Your task to perform on an android device: clear all cookies in the chrome app Image 0: 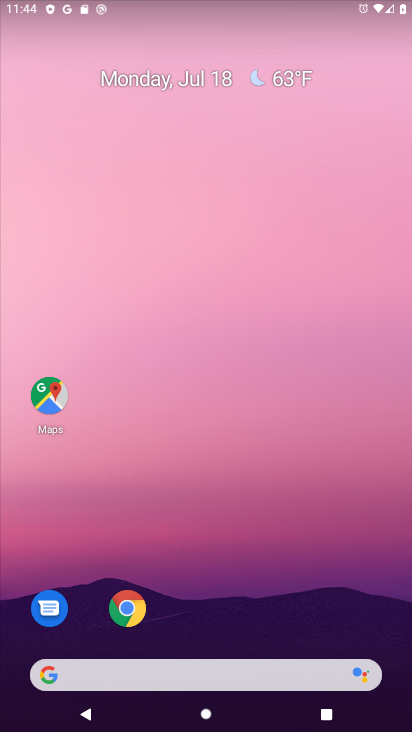
Step 0: click (118, 618)
Your task to perform on an android device: clear all cookies in the chrome app Image 1: 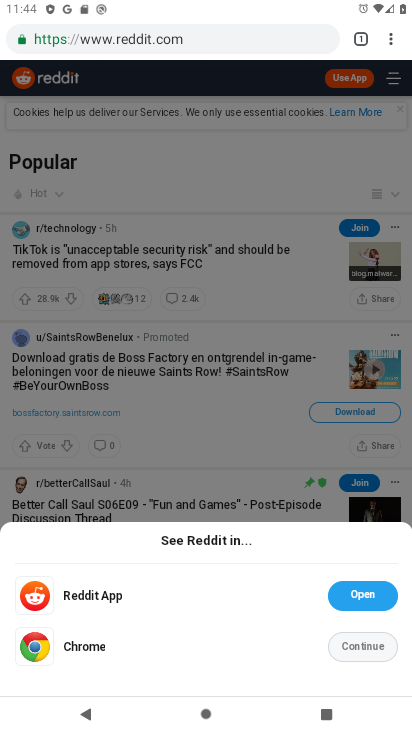
Step 1: click (393, 40)
Your task to perform on an android device: clear all cookies in the chrome app Image 2: 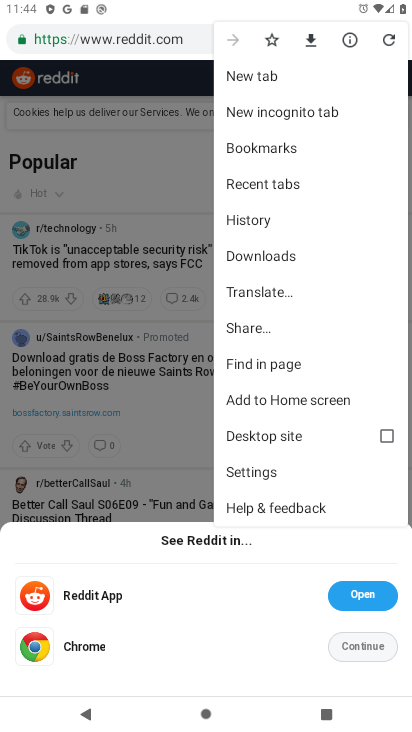
Step 2: click (250, 210)
Your task to perform on an android device: clear all cookies in the chrome app Image 3: 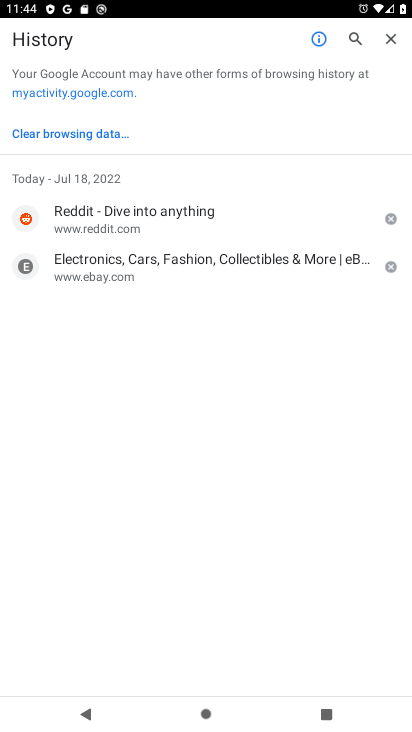
Step 3: click (86, 139)
Your task to perform on an android device: clear all cookies in the chrome app Image 4: 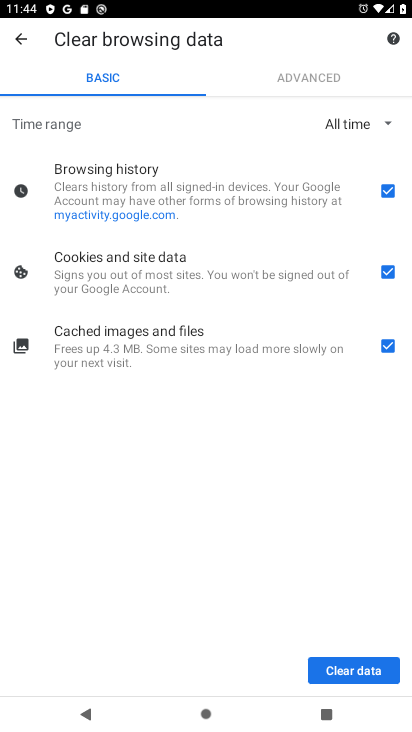
Step 4: click (375, 355)
Your task to perform on an android device: clear all cookies in the chrome app Image 5: 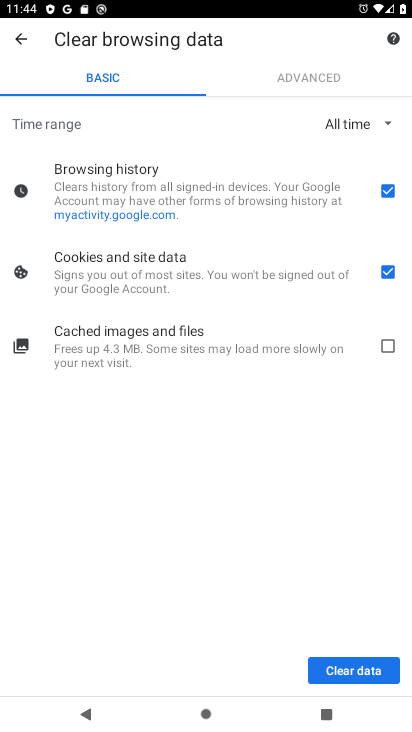
Step 5: click (375, 355)
Your task to perform on an android device: clear all cookies in the chrome app Image 6: 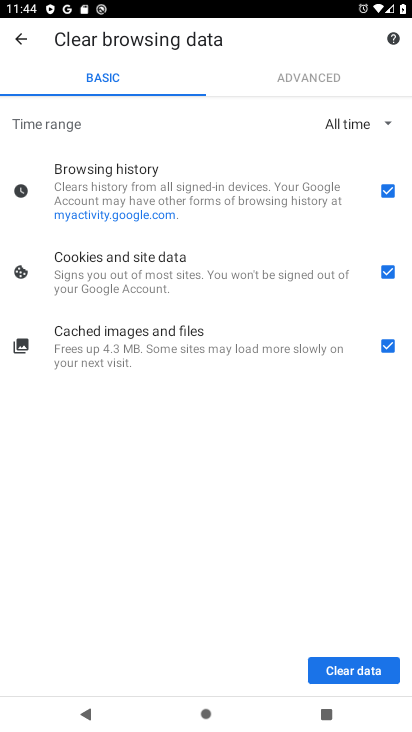
Step 6: click (375, 355)
Your task to perform on an android device: clear all cookies in the chrome app Image 7: 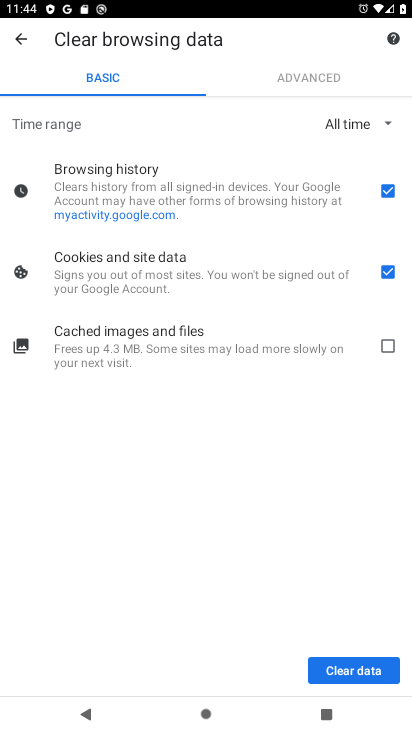
Step 7: click (387, 173)
Your task to perform on an android device: clear all cookies in the chrome app Image 8: 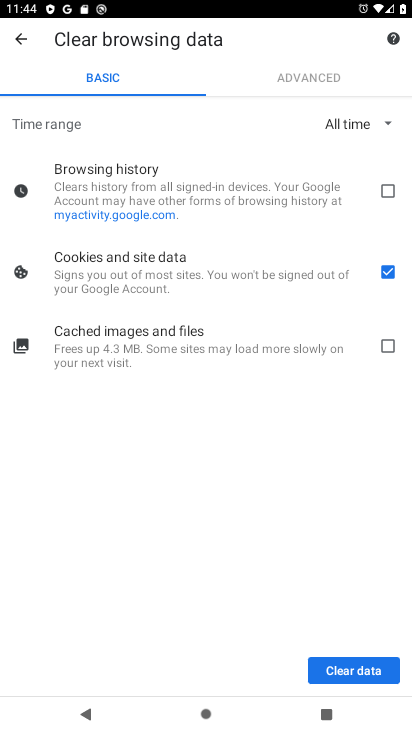
Step 8: click (367, 674)
Your task to perform on an android device: clear all cookies in the chrome app Image 9: 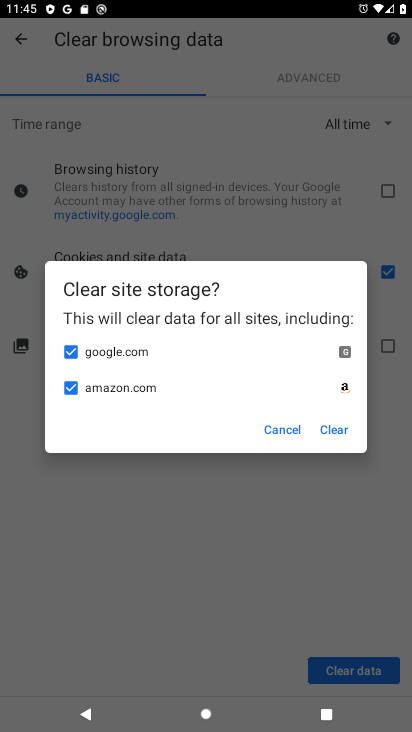
Step 9: click (328, 426)
Your task to perform on an android device: clear all cookies in the chrome app Image 10: 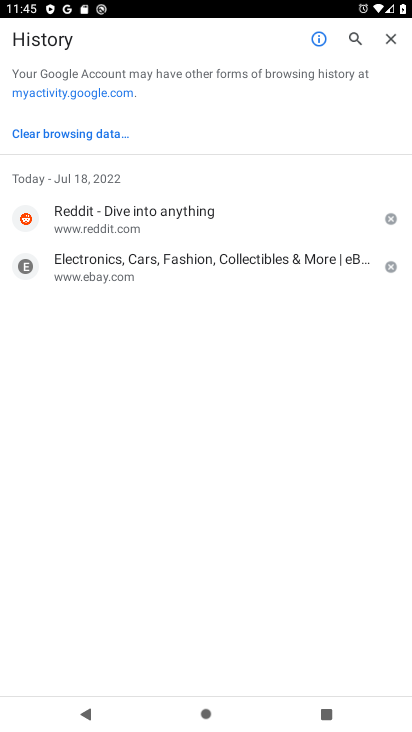
Step 10: task complete